Your task to perform on an android device: visit the assistant section in the google photos Image 0: 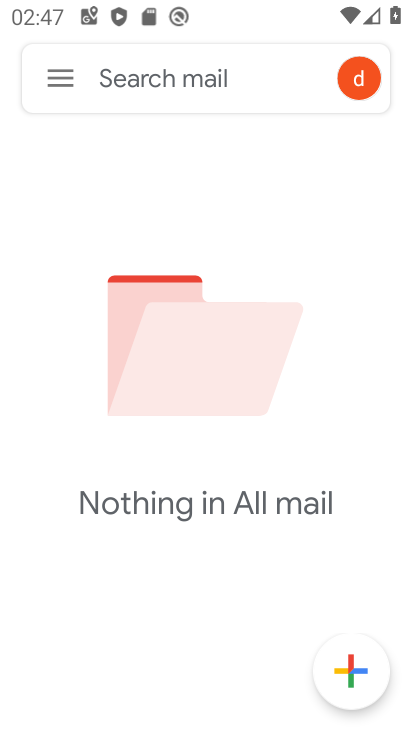
Step 0: press back button
Your task to perform on an android device: visit the assistant section in the google photos Image 1: 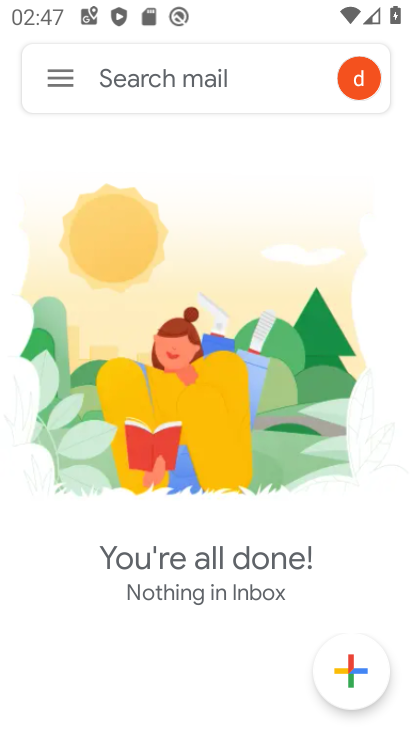
Step 1: press back button
Your task to perform on an android device: visit the assistant section in the google photos Image 2: 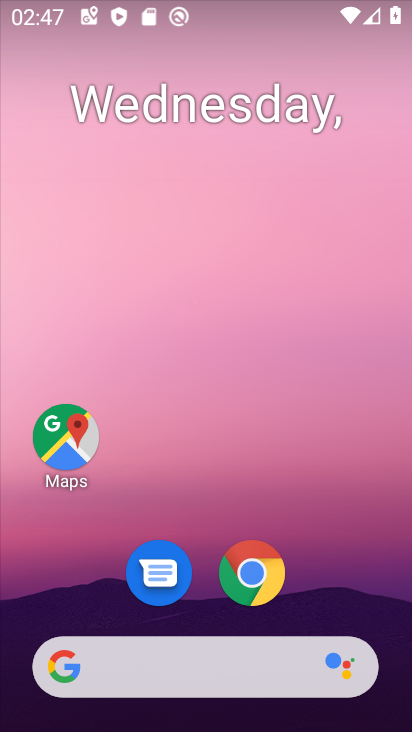
Step 2: drag from (364, 599) to (342, 119)
Your task to perform on an android device: visit the assistant section in the google photos Image 3: 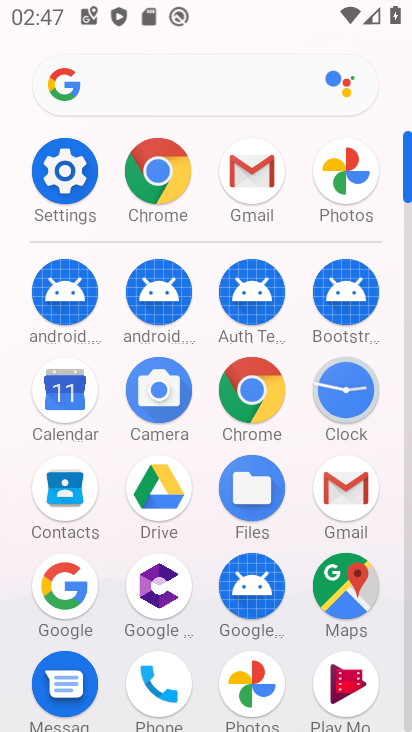
Step 3: click (348, 173)
Your task to perform on an android device: visit the assistant section in the google photos Image 4: 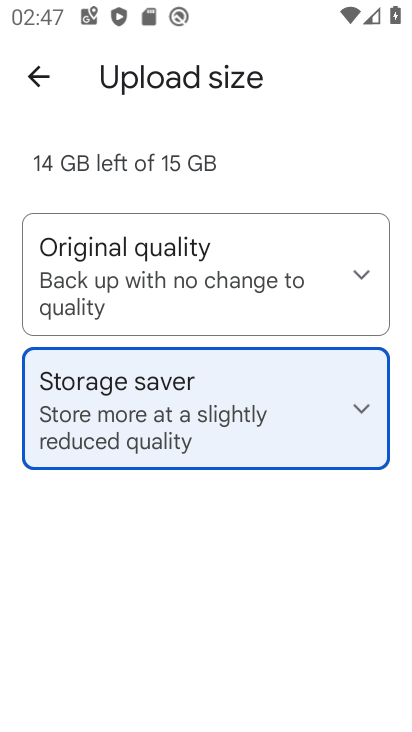
Step 4: press back button
Your task to perform on an android device: visit the assistant section in the google photos Image 5: 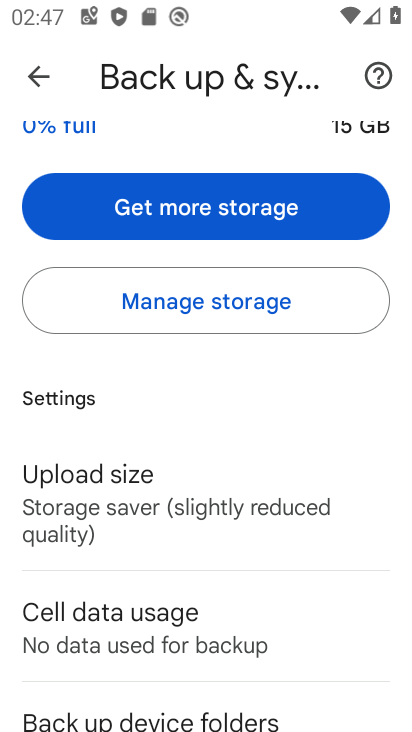
Step 5: press back button
Your task to perform on an android device: visit the assistant section in the google photos Image 6: 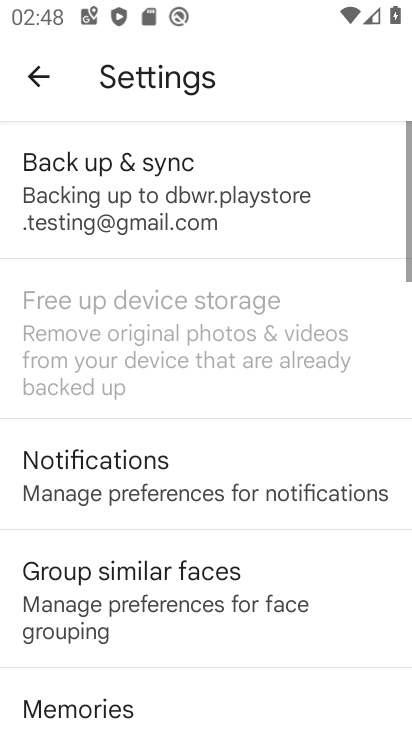
Step 6: press back button
Your task to perform on an android device: visit the assistant section in the google photos Image 7: 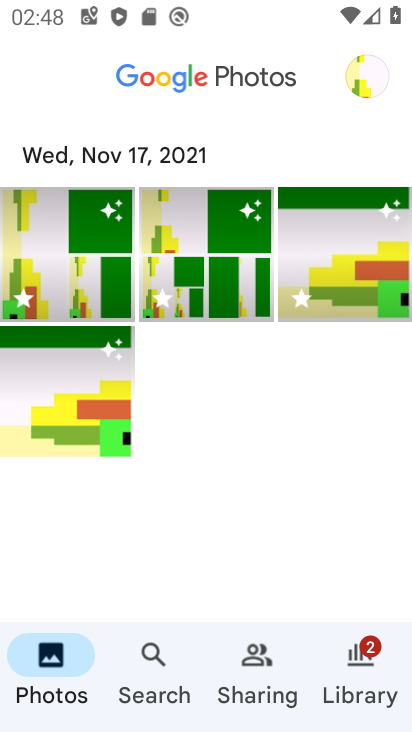
Step 7: click (354, 665)
Your task to perform on an android device: visit the assistant section in the google photos Image 8: 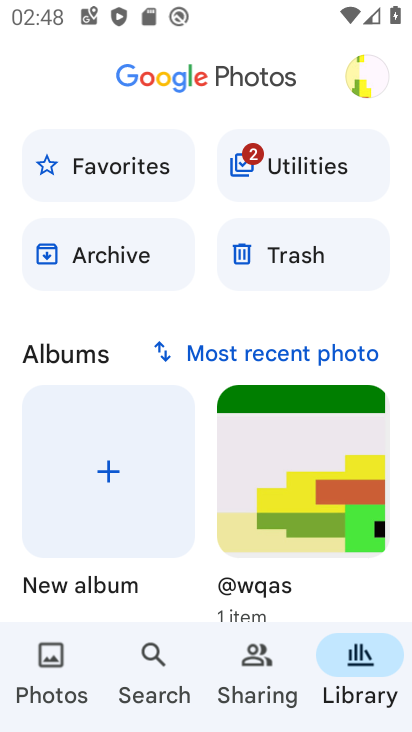
Step 8: click (109, 243)
Your task to perform on an android device: visit the assistant section in the google photos Image 9: 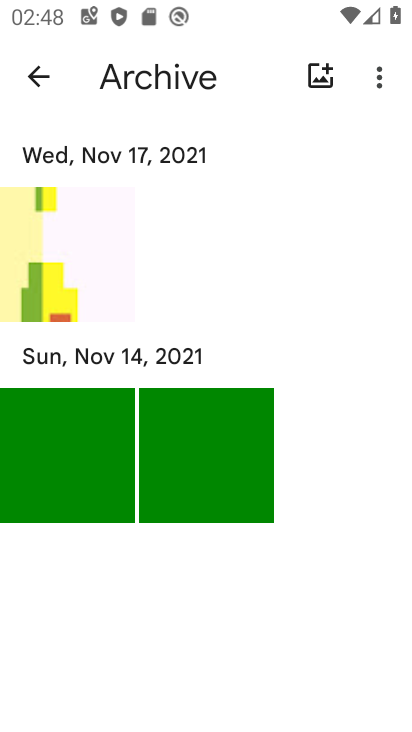
Step 9: click (380, 77)
Your task to perform on an android device: visit the assistant section in the google photos Image 10: 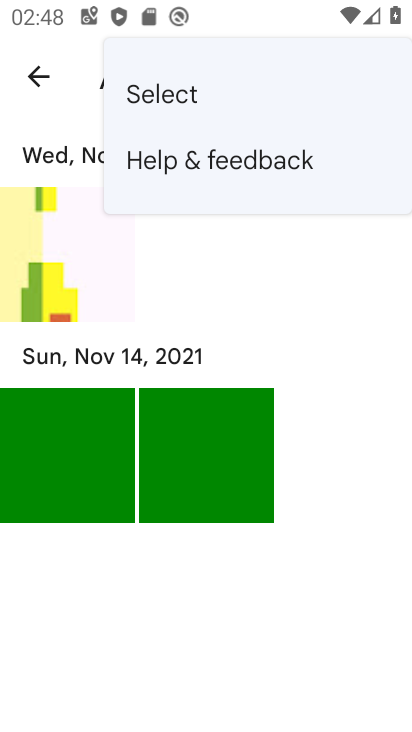
Step 10: press back button
Your task to perform on an android device: visit the assistant section in the google photos Image 11: 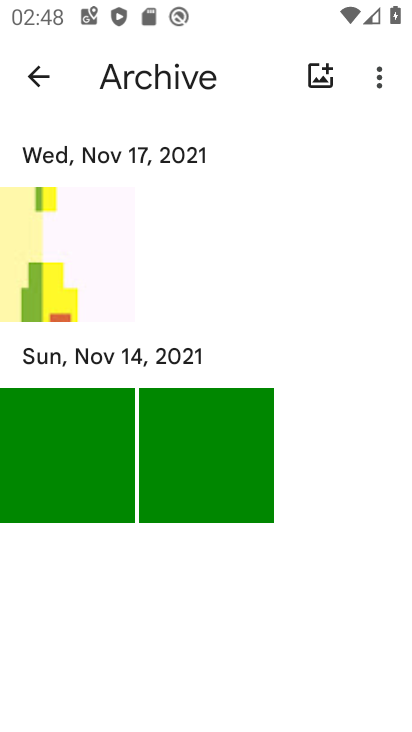
Step 11: press back button
Your task to perform on an android device: visit the assistant section in the google photos Image 12: 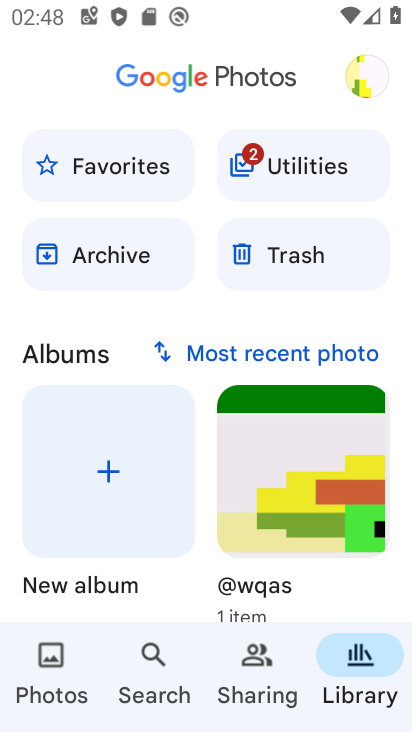
Step 12: click (326, 166)
Your task to perform on an android device: visit the assistant section in the google photos Image 13: 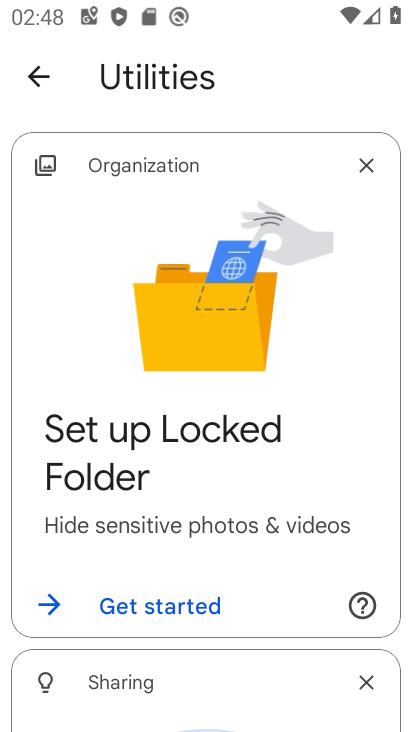
Step 13: drag from (197, 513) to (337, 353)
Your task to perform on an android device: visit the assistant section in the google photos Image 14: 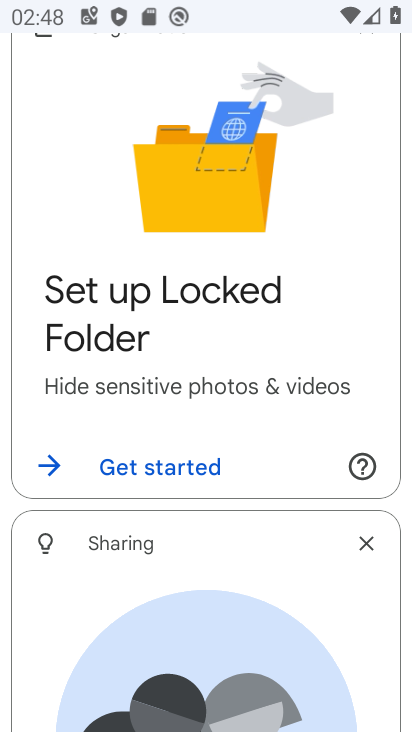
Step 14: drag from (220, 516) to (343, 291)
Your task to perform on an android device: visit the assistant section in the google photos Image 15: 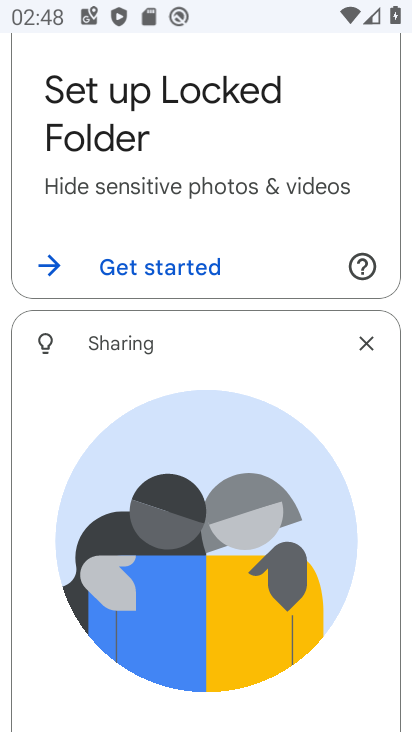
Step 15: drag from (265, 480) to (368, 275)
Your task to perform on an android device: visit the assistant section in the google photos Image 16: 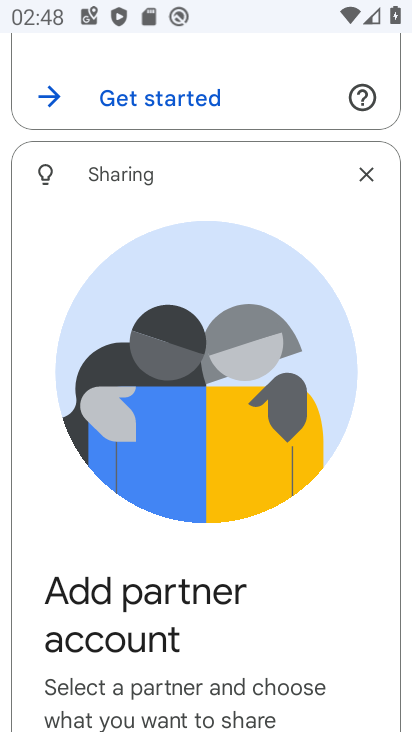
Step 16: drag from (222, 506) to (340, 290)
Your task to perform on an android device: visit the assistant section in the google photos Image 17: 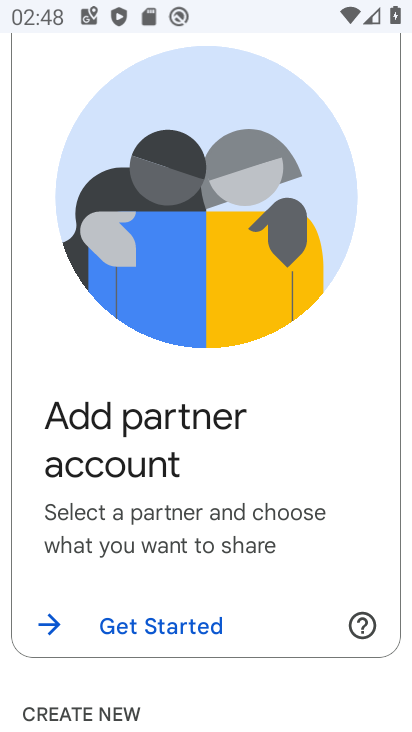
Step 17: drag from (228, 563) to (348, 289)
Your task to perform on an android device: visit the assistant section in the google photos Image 18: 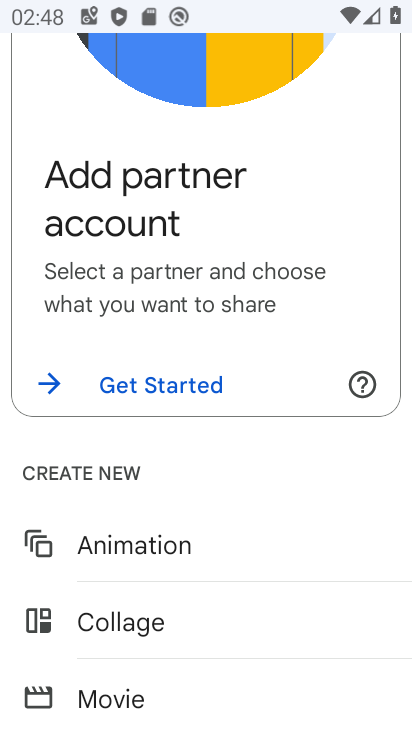
Step 18: drag from (210, 549) to (339, 336)
Your task to perform on an android device: visit the assistant section in the google photos Image 19: 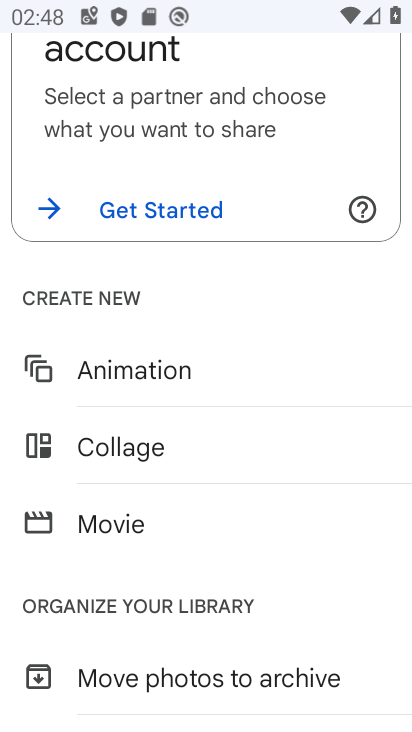
Step 19: drag from (252, 551) to (352, 386)
Your task to perform on an android device: visit the assistant section in the google photos Image 20: 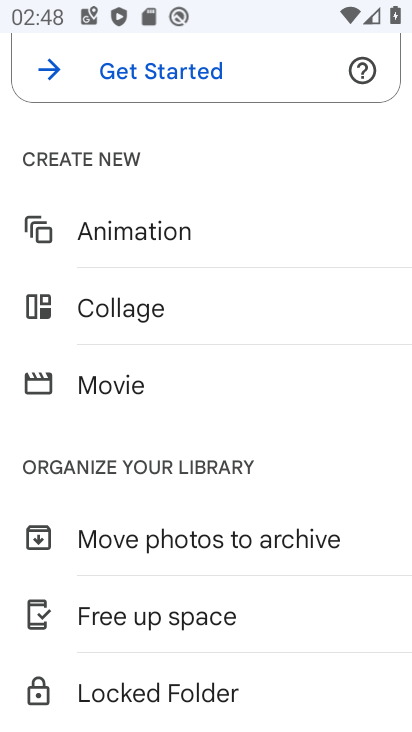
Step 20: drag from (254, 587) to (355, 433)
Your task to perform on an android device: visit the assistant section in the google photos Image 21: 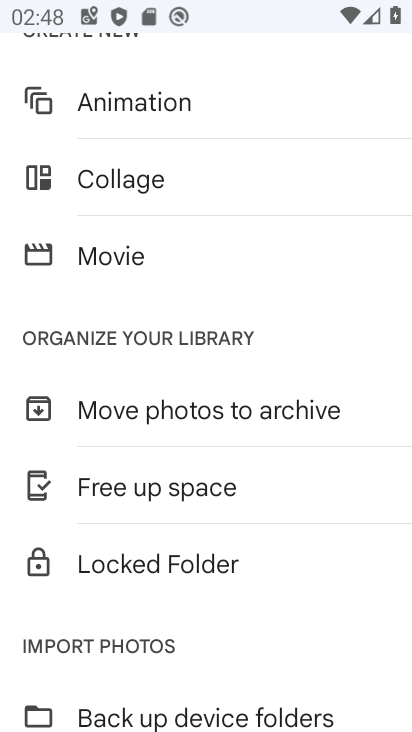
Step 21: drag from (198, 633) to (329, 479)
Your task to perform on an android device: visit the assistant section in the google photos Image 22: 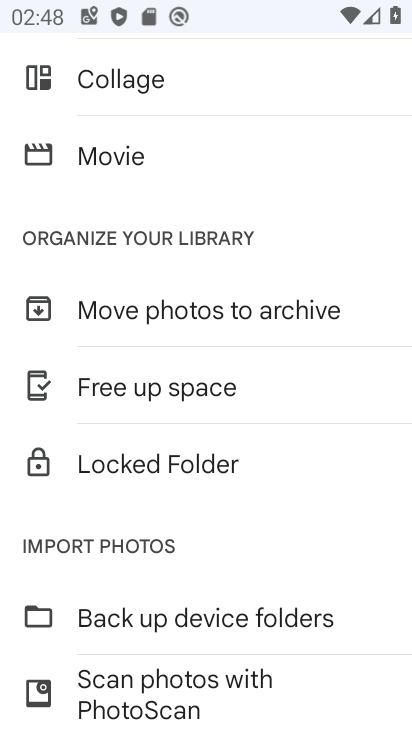
Step 22: drag from (230, 664) to (340, 510)
Your task to perform on an android device: visit the assistant section in the google photos Image 23: 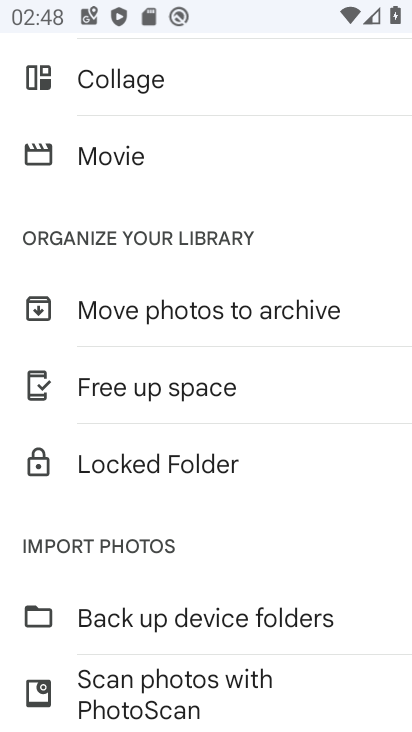
Step 23: click (285, 602)
Your task to perform on an android device: visit the assistant section in the google photos Image 24: 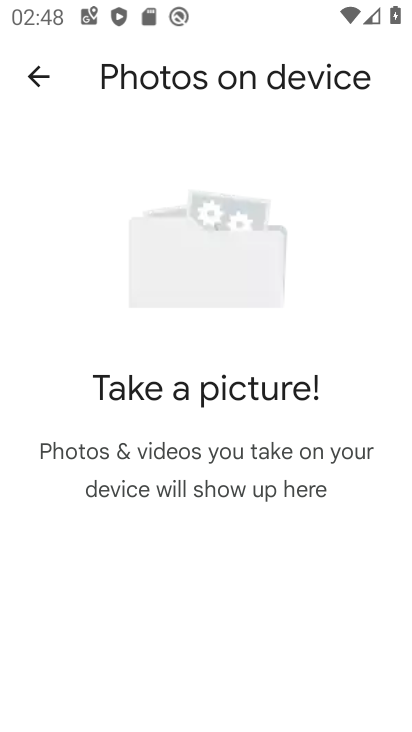
Step 24: task complete